Your task to perform on an android device: Is it going to rain today? Image 0: 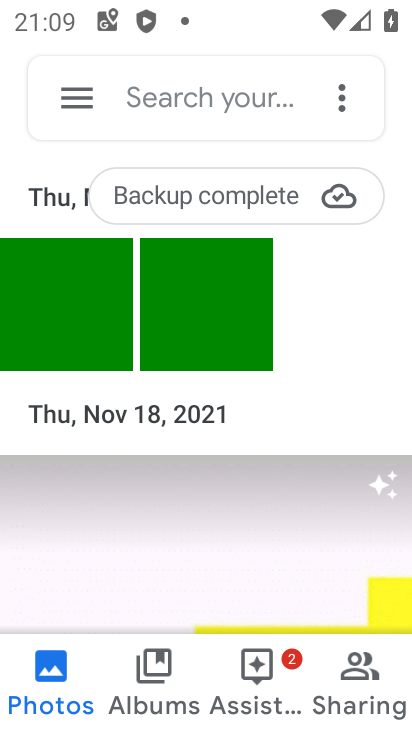
Step 0: press home button
Your task to perform on an android device: Is it going to rain today? Image 1: 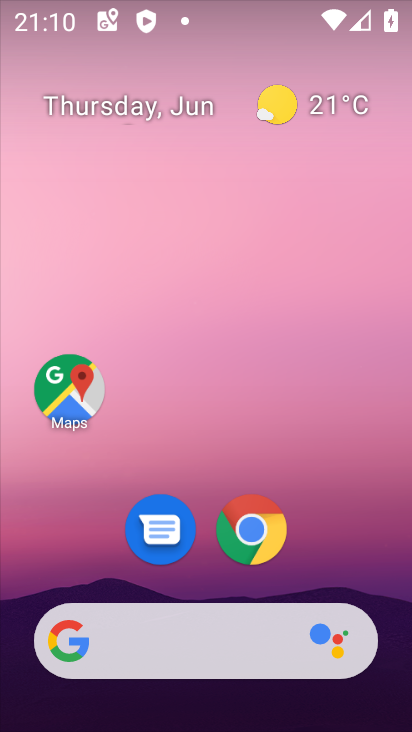
Step 1: click (179, 648)
Your task to perform on an android device: Is it going to rain today? Image 2: 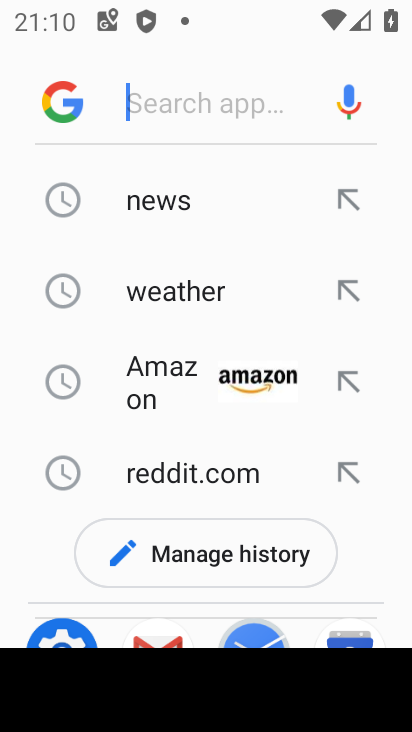
Step 2: click (191, 295)
Your task to perform on an android device: Is it going to rain today? Image 3: 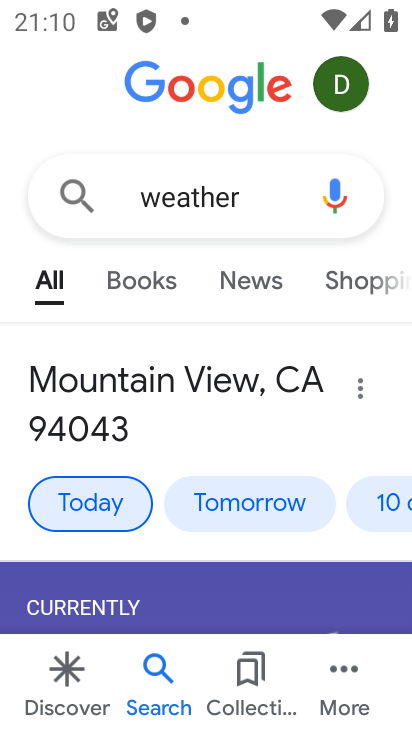
Step 3: task complete